Your task to perform on an android device: turn off smart reply in the gmail app Image 0: 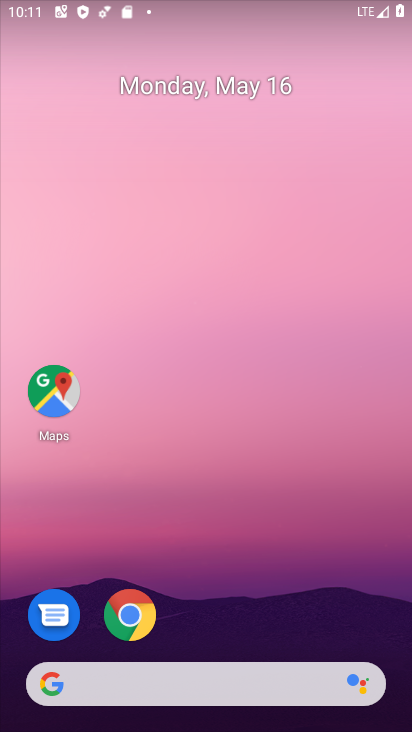
Step 0: drag from (226, 726) to (183, 142)
Your task to perform on an android device: turn off smart reply in the gmail app Image 1: 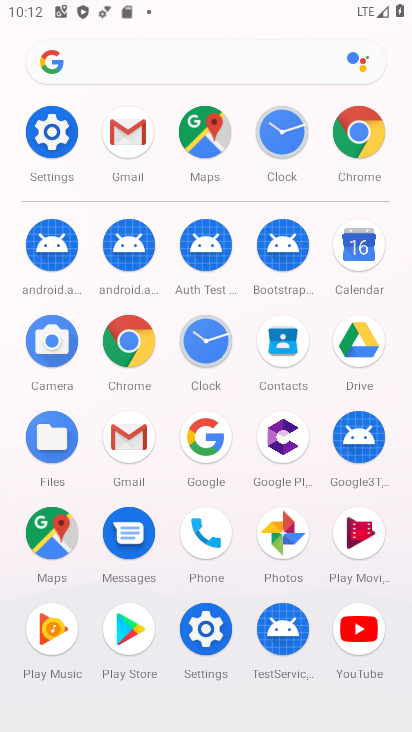
Step 1: click (133, 448)
Your task to perform on an android device: turn off smart reply in the gmail app Image 2: 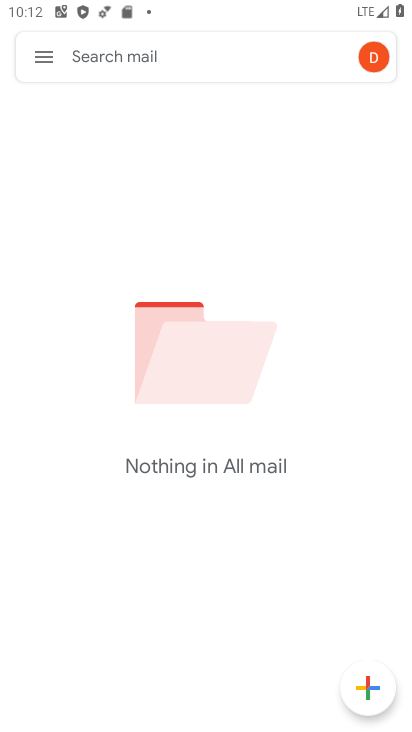
Step 2: click (49, 64)
Your task to perform on an android device: turn off smart reply in the gmail app Image 3: 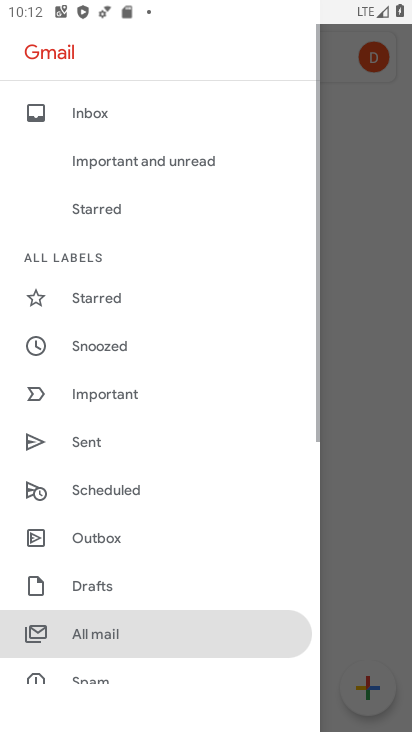
Step 3: drag from (143, 654) to (187, 169)
Your task to perform on an android device: turn off smart reply in the gmail app Image 4: 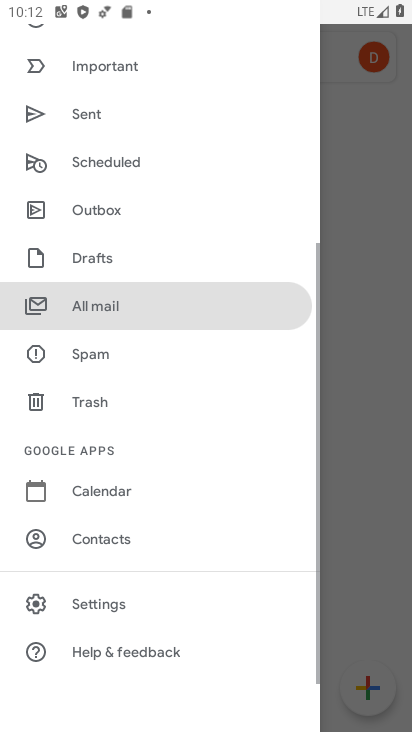
Step 4: click (146, 608)
Your task to perform on an android device: turn off smart reply in the gmail app Image 5: 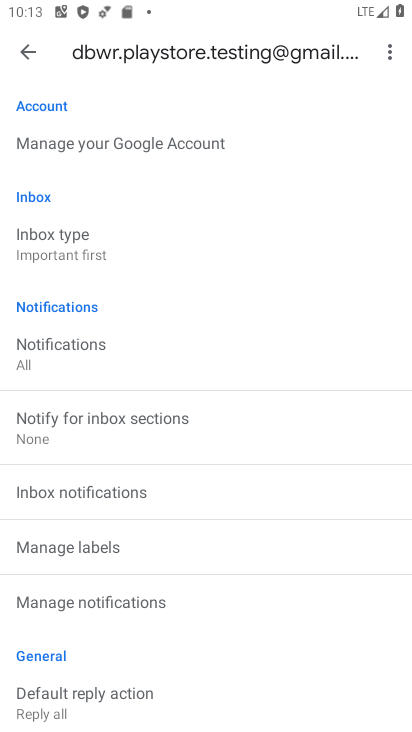
Step 5: task complete